Your task to perform on an android device: turn notification dots off Image 0: 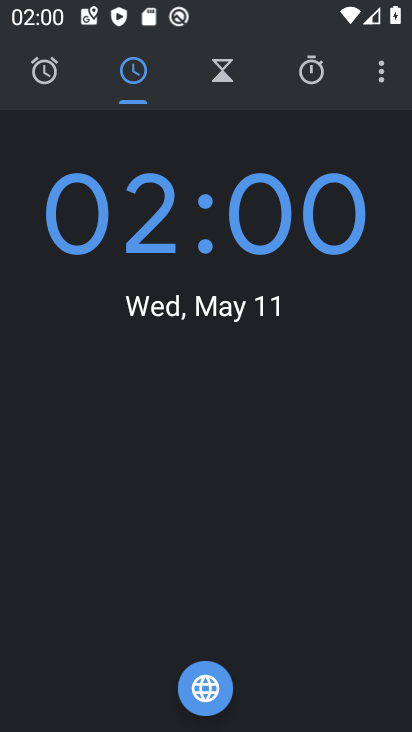
Step 0: press back button
Your task to perform on an android device: turn notification dots off Image 1: 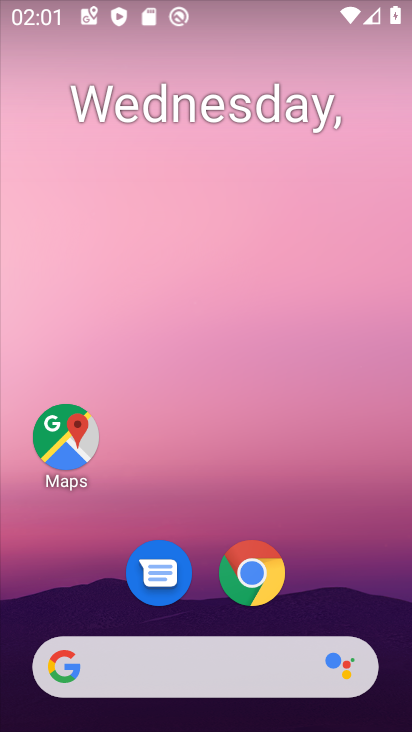
Step 1: drag from (344, 585) to (238, 0)
Your task to perform on an android device: turn notification dots off Image 2: 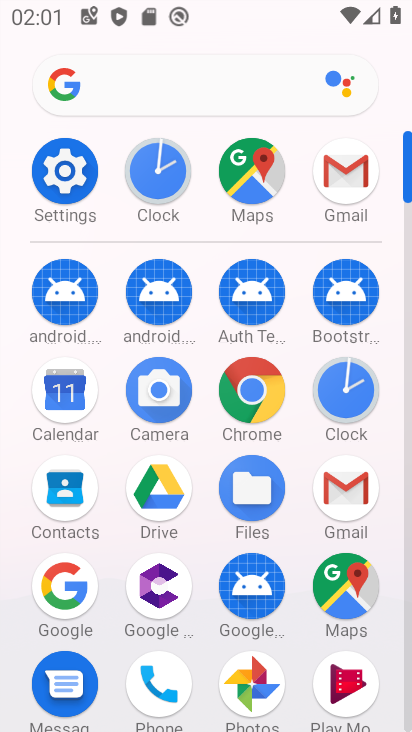
Step 2: click (65, 170)
Your task to perform on an android device: turn notification dots off Image 3: 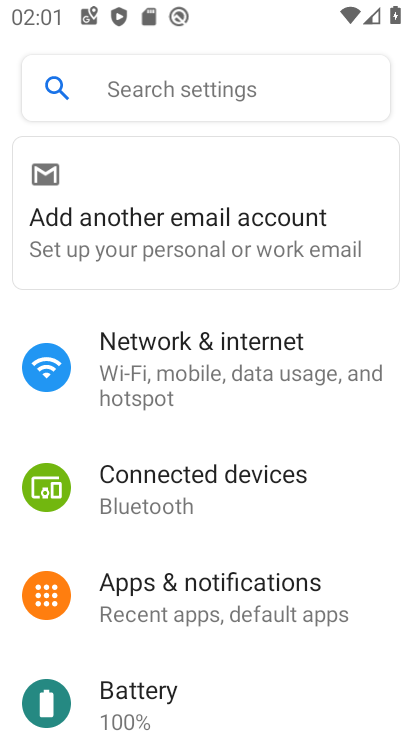
Step 3: click (195, 587)
Your task to perform on an android device: turn notification dots off Image 4: 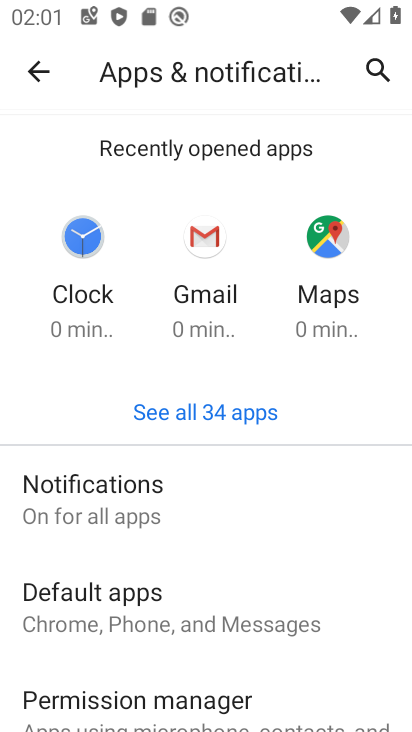
Step 4: click (102, 477)
Your task to perform on an android device: turn notification dots off Image 5: 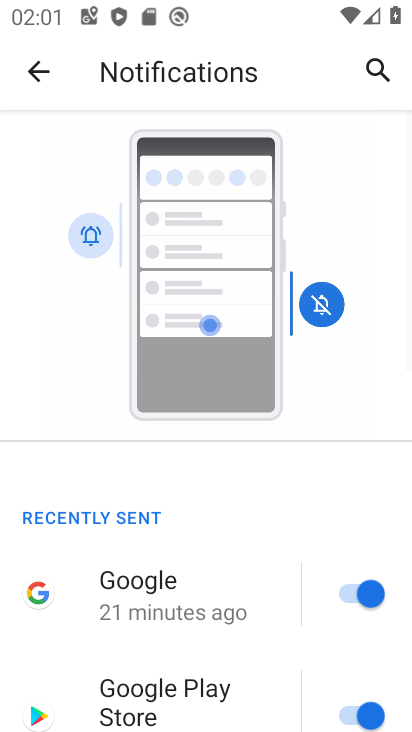
Step 5: drag from (207, 545) to (210, 166)
Your task to perform on an android device: turn notification dots off Image 6: 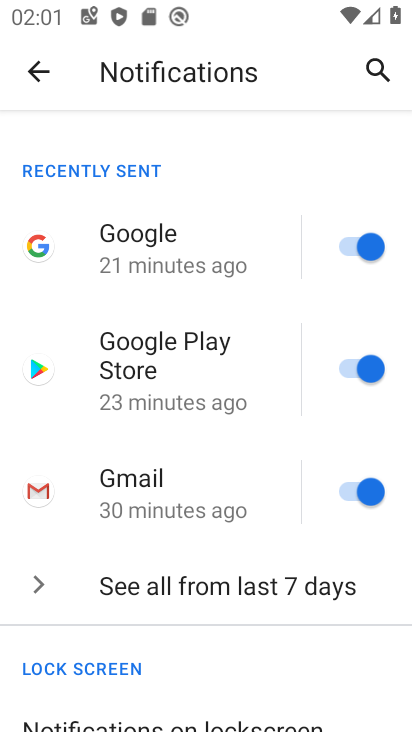
Step 6: drag from (184, 655) to (231, 317)
Your task to perform on an android device: turn notification dots off Image 7: 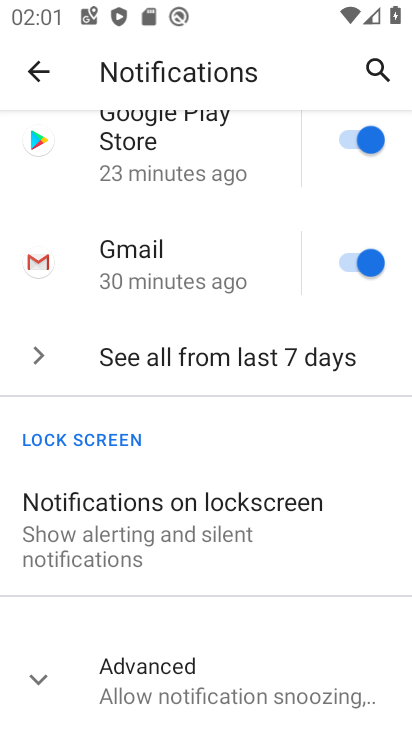
Step 7: click (173, 682)
Your task to perform on an android device: turn notification dots off Image 8: 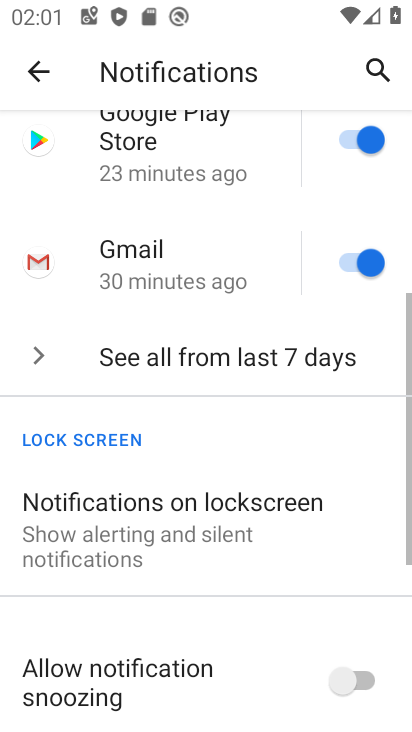
Step 8: drag from (179, 688) to (241, 334)
Your task to perform on an android device: turn notification dots off Image 9: 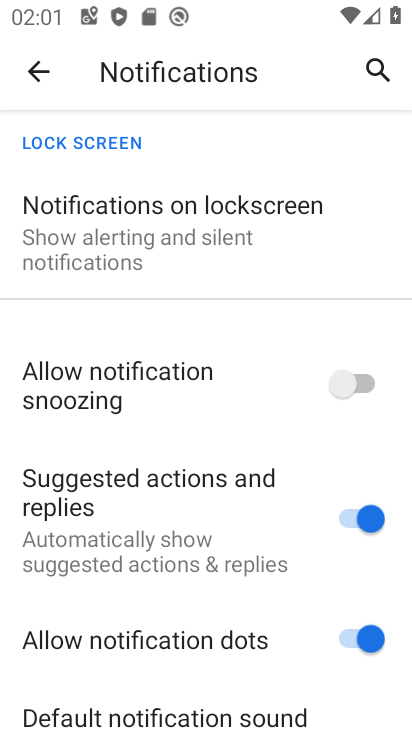
Step 9: click (370, 634)
Your task to perform on an android device: turn notification dots off Image 10: 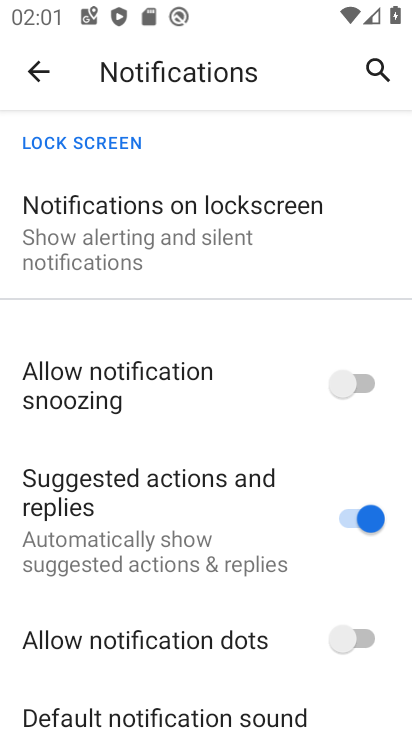
Step 10: task complete